Your task to perform on an android device: Open Amazon Image 0: 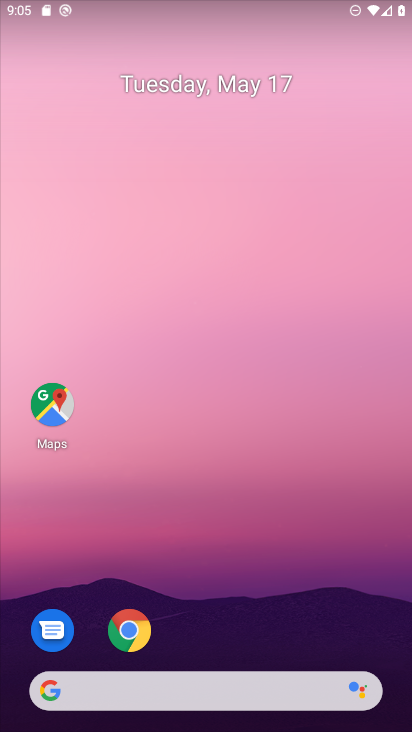
Step 0: drag from (366, 612) to (367, 217)
Your task to perform on an android device: Open Amazon Image 1: 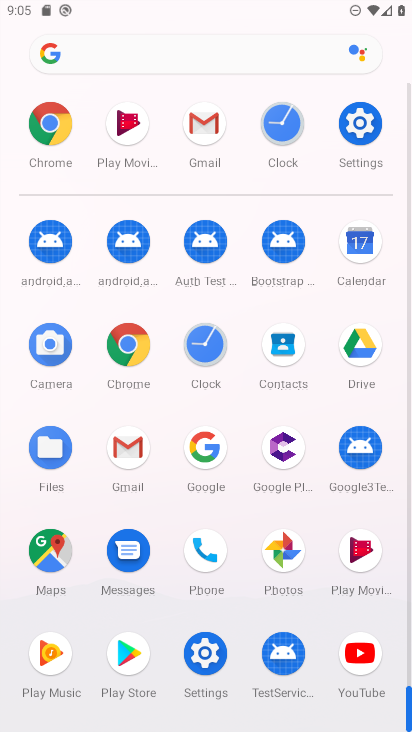
Step 1: click (127, 353)
Your task to perform on an android device: Open Amazon Image 2: 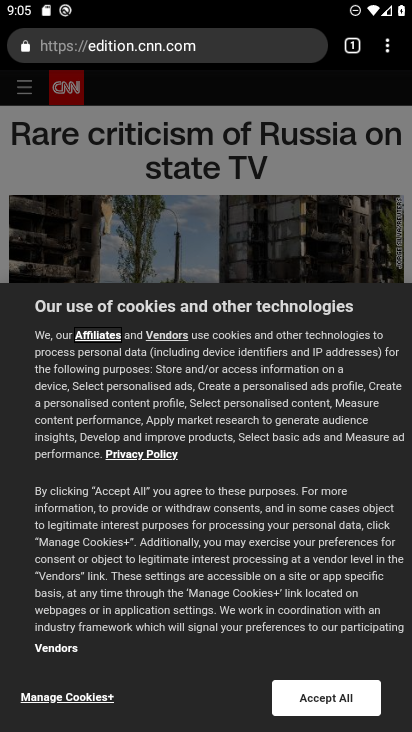
Step 2: press back button
Your task to perform on an android device: Open Amazon Image 3: 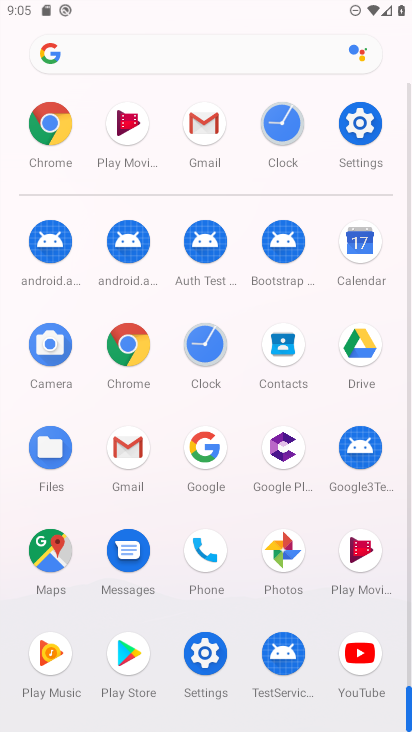
Step 3: click (133, 348)
Your task to perform on an android device: Open Amazon Image 4: 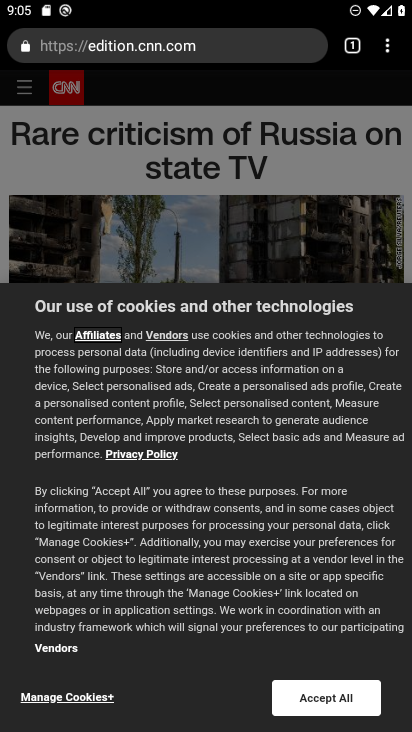
Step 4: click (219, 50)
Your task to perform on an android device: Open Amazon Image 5: 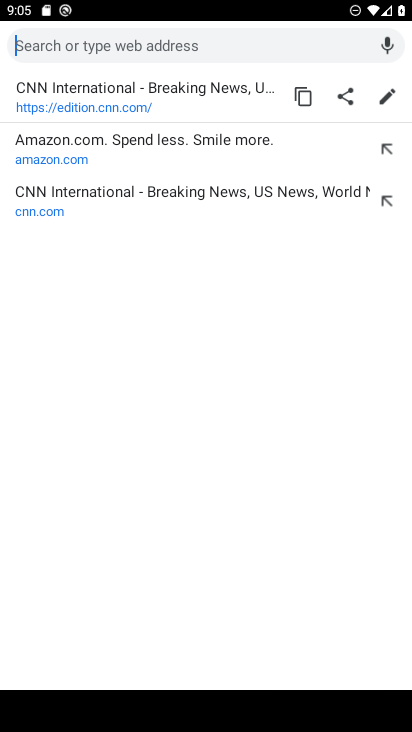
Step 5: type "amzone"
Your task to perform on an android device: Open Amazon Image 6: 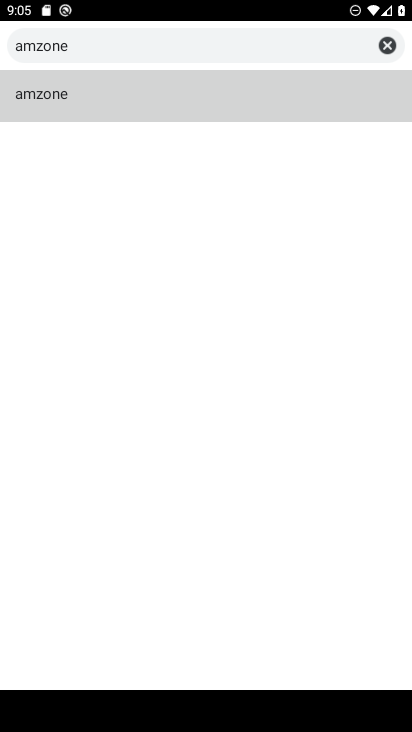
Step 6: click (138, 96)
Your task to perform on an android device: Open Amazon Image 7: 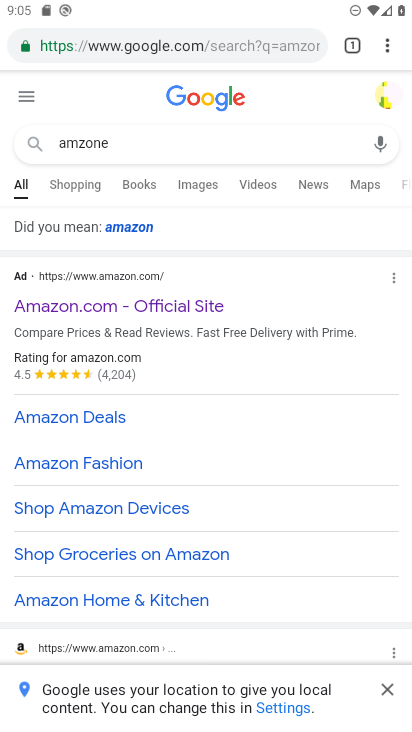
Step 7: click (177, 306)
Your task to perform on an android device: Open Amazon Image 8: 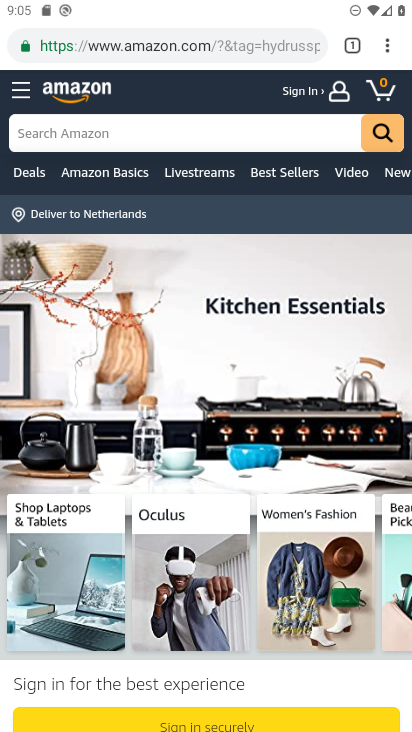
Step 8: task complete